Your task to perform on an android device: change the clock display to analog Image 0: 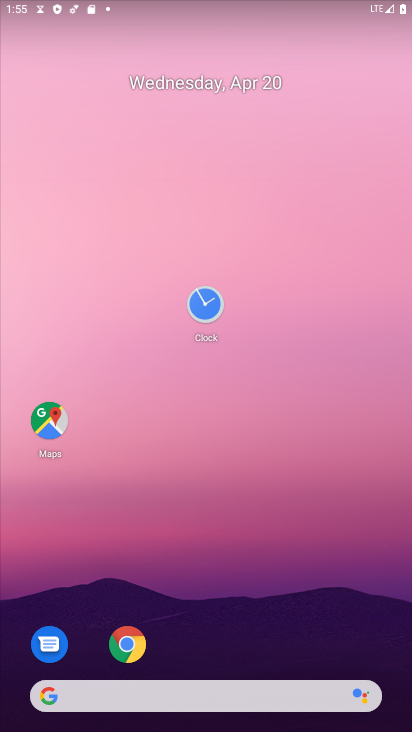
Step 0: drag from (158, 669) to (142, 310)
Your task to perform on an android device: change the clock display to analog Image 1: 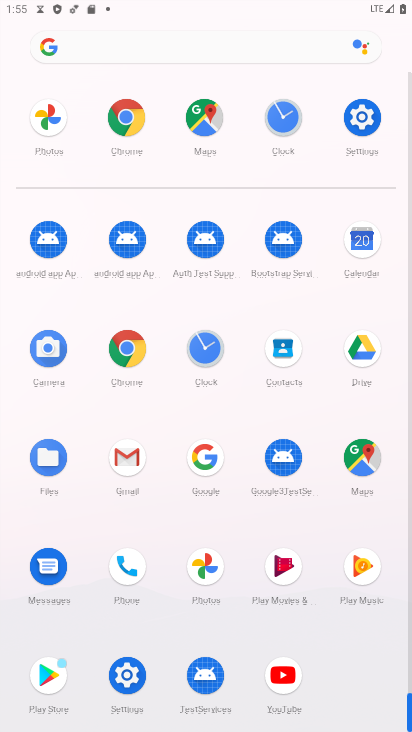
Step 1: click (211, 366)
Your task to perform on an android device: change the clock display to analog Image 2: 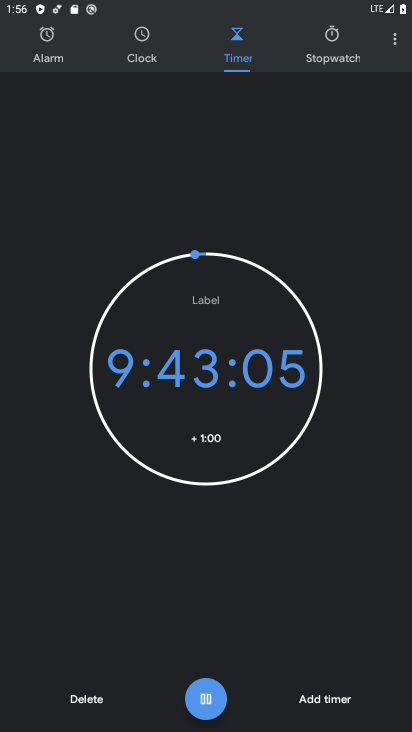
Step 2: click (403, 31)
Your task to perform on an android device: change the clock display to analog Image 3: 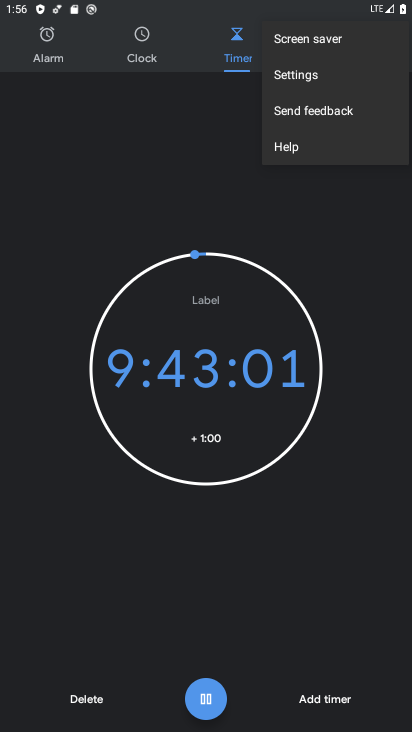
Step 3: click (338, 85)
Your task to perform on an android device: change the clock display to analog Image 4: 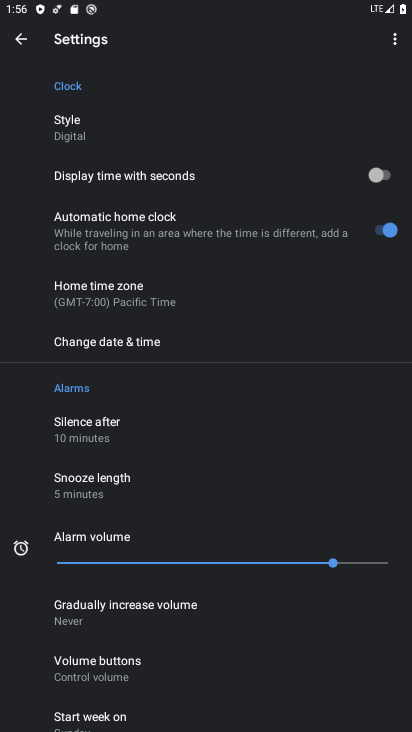
Step 4: click (135, 135)
Your task to perform on an android device: change the clock display to analog Image 5: 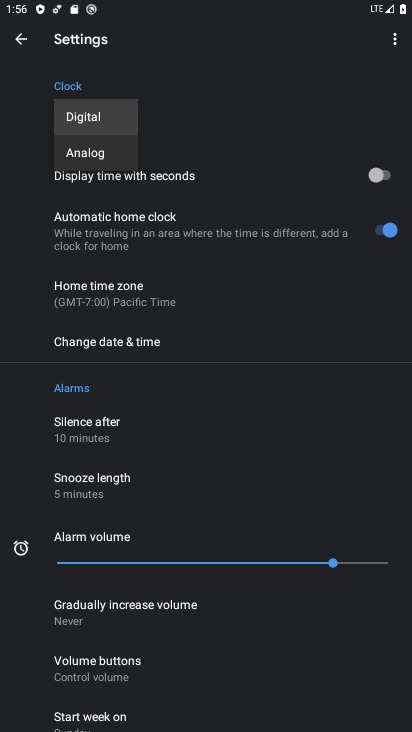
Step 5: click (183, 354)
Your task to perform on an android device: change the clock display to analog Image 6: 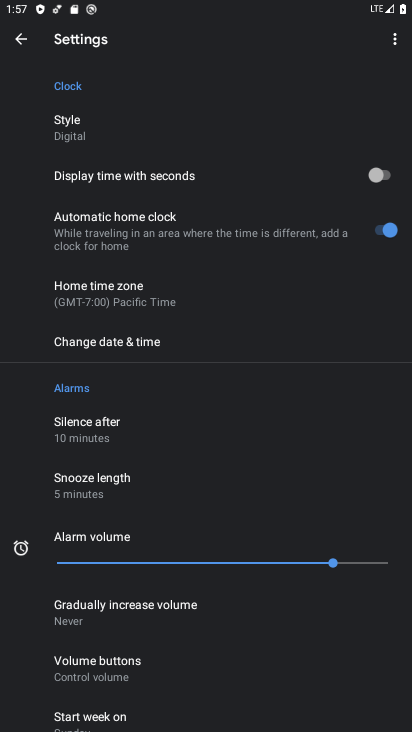
Step 6: click (92, 133)
Your task to perform on an android device: change the clock display to analog Image 7: 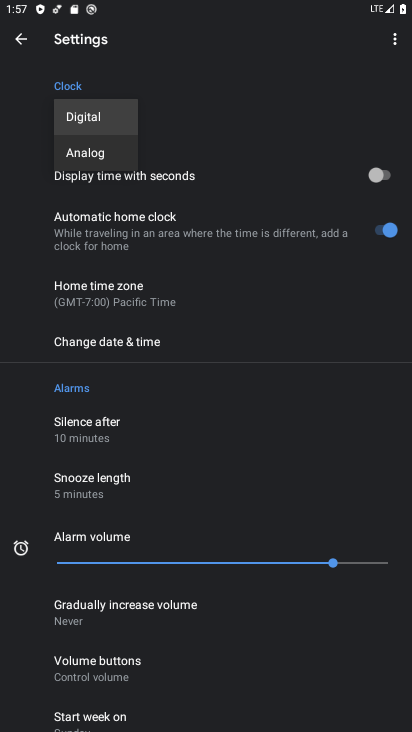
Step 7: click (109, 147)
Your task to perform on an android device: change the clock display to analog Image 8: 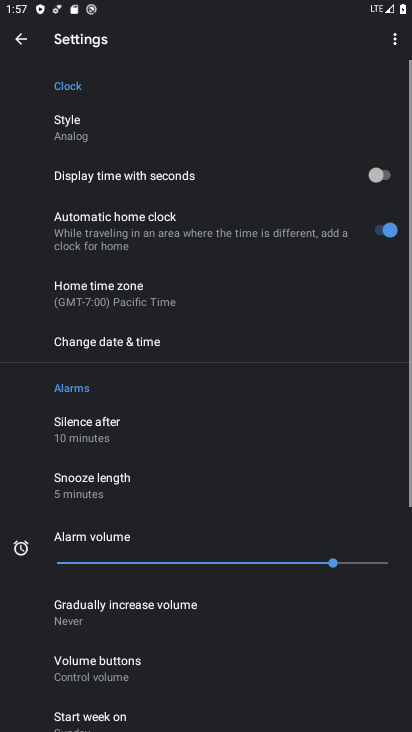
Step 8: task complete